Your task to perform on an android device: Open calendar and show me the first week of next month Image 0: 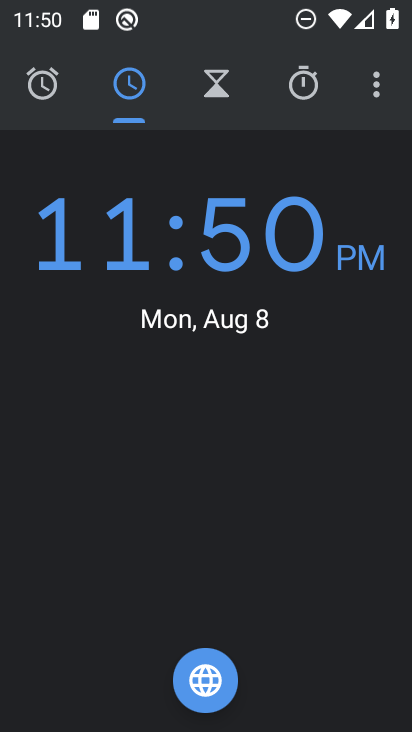
Step 0: press home button
Your task to perform on an android device: Open calendar and show me the first week of next month Image 1: 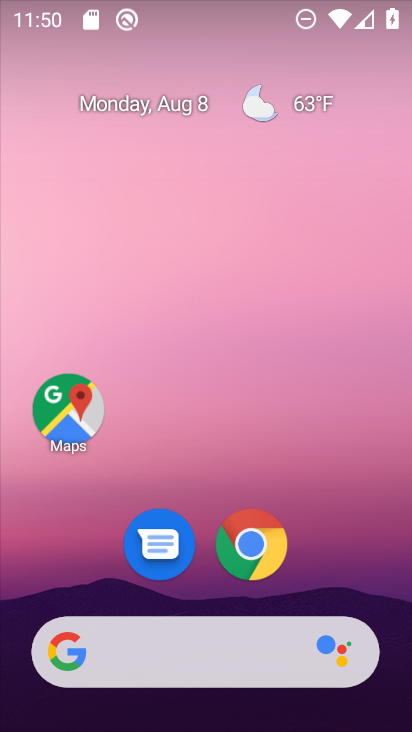
Step 1: drag from (186, 637) to (266, 88)
Your task to perform on an android device: Open calendar and show me the first week of next month Image 2: 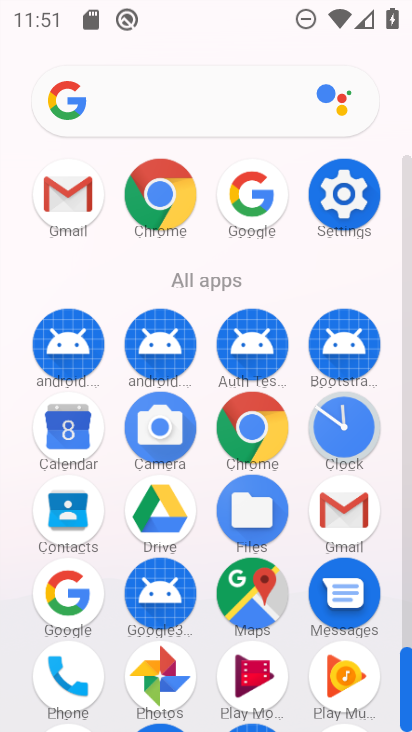
Step 2: click (66, 431)
Your task to perform on an android device: Open calendar and show me the first week of next month Image 3: 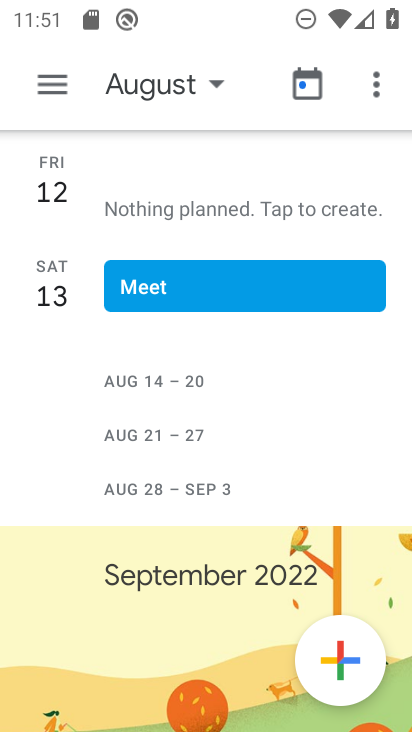
Step 3: click (222, 88)
Your task to perform on an android device: Open calendar and show me the first week of next month Image 4: 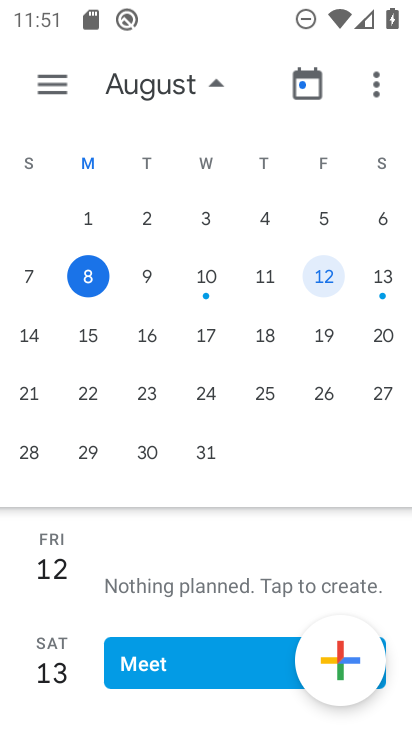
Step 4: drag from (367, 316) to (54, 420)
Your task to perform on an android device: Open calendar and show me the first week of next month Image 5: 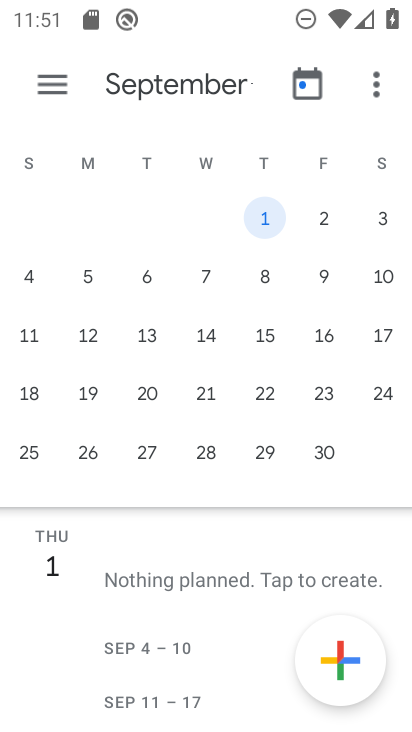
Step 5: click (85, 279)
Your task to perform on an android device: Open calendar and show me the first week of next month Image 6: 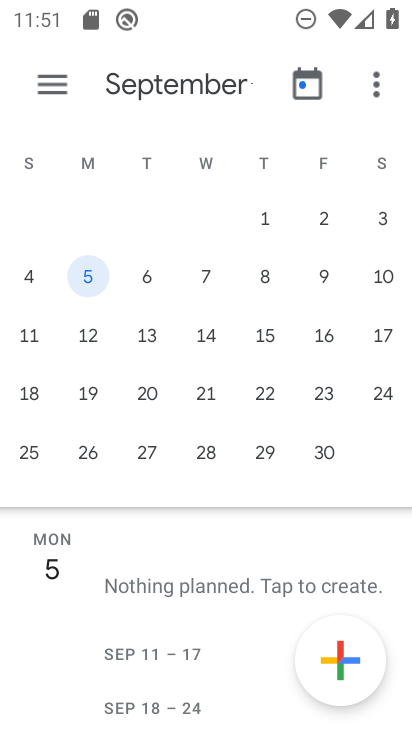
Step 6: click (49, 90)
Your task to perform on an android device: Open calendar and show me the first week of next month Image 7: 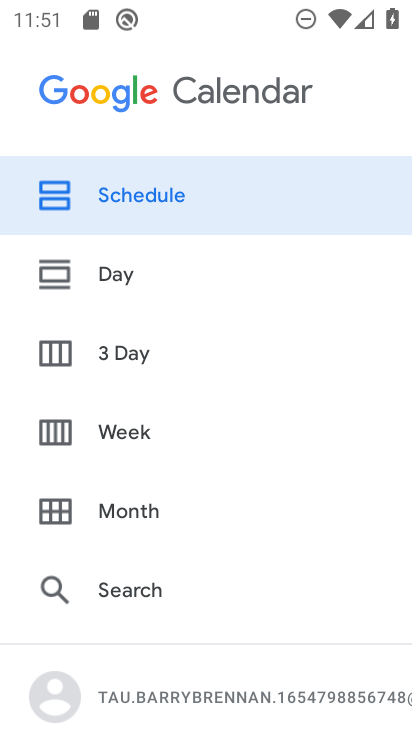
Step 7: click (106, 432)
Your task to perform on an android device: Open calendar and show me the first week of next month Image 8: 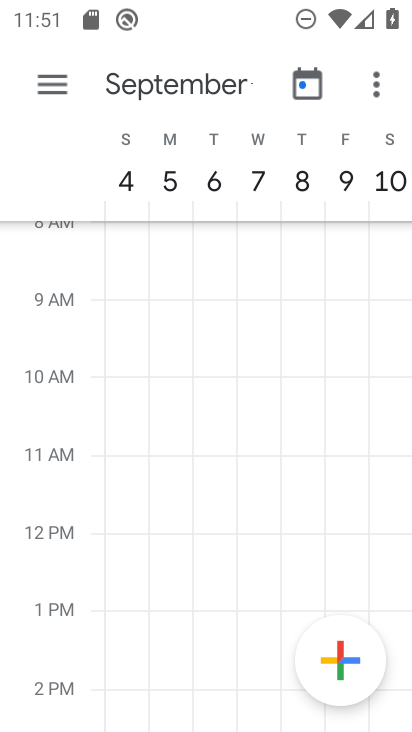
Step 8: task complete